Your task to perform on an android device: turn notification dots on Image 0: 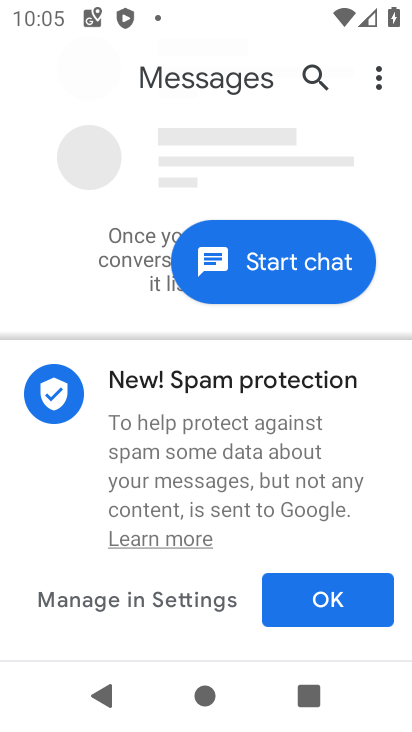
Step 0: press home button
Your task to perform on an android device: turn notification dots on Image 1: 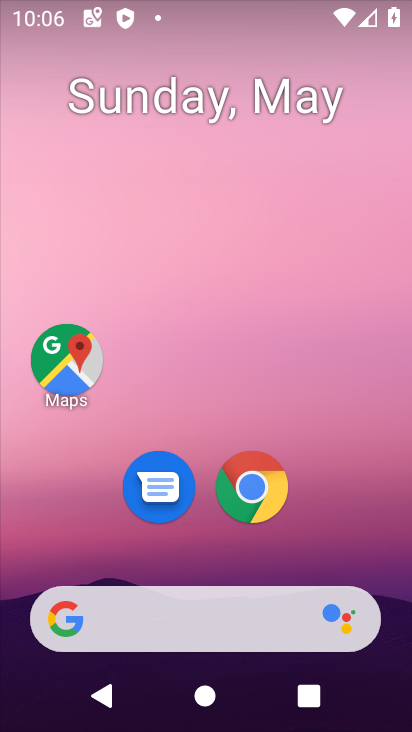
Step 1: drag from (388, 543) to (363, 229)
Your task to perform on an android device: turn notification dots on Image 2: 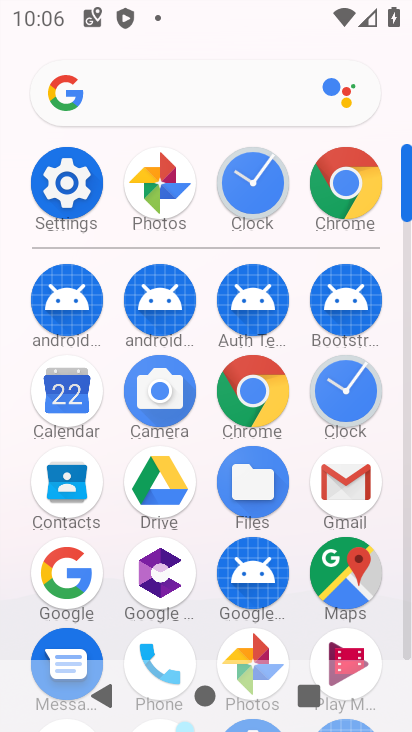
Step 2: click (81, 216)
Your task to perform on an android device: turn notification dots on Image 3: 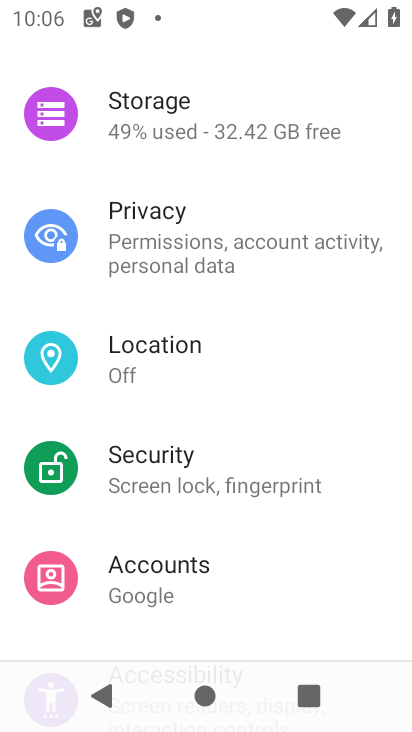
Step 3: drag from (350, 296) to (352, 413)
Your task to perform on an android device: turn notification dots on Image 4: 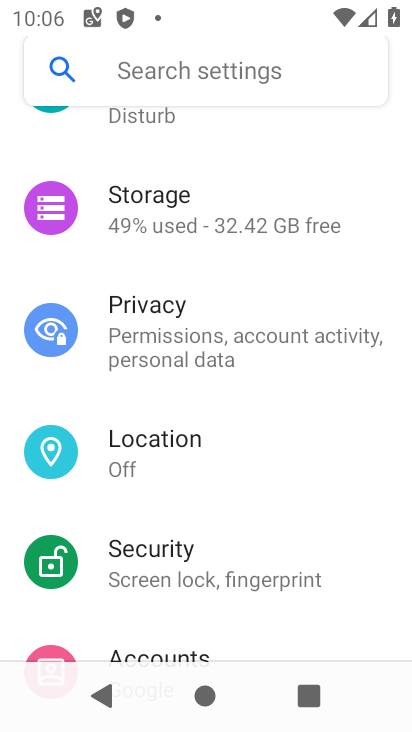
Step 4: drag from (354, 249) to (363, 359)
Your task to perform on an android device: turn notification dots on Image 5: 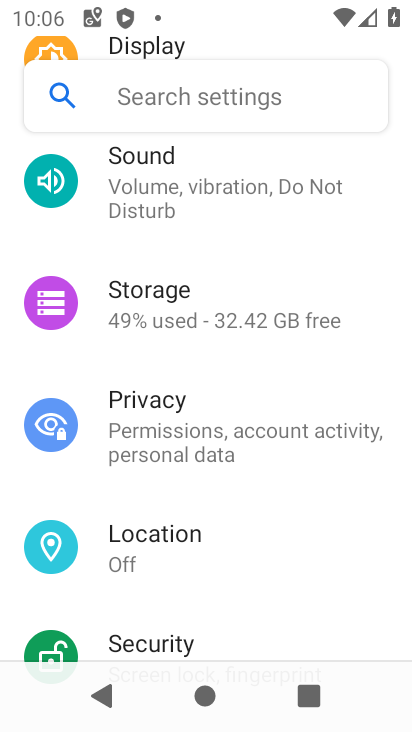
Step 5: drag from (362, 232) to (365, 343)
Your task to perform on an android device: turn notification dots on Image 6: 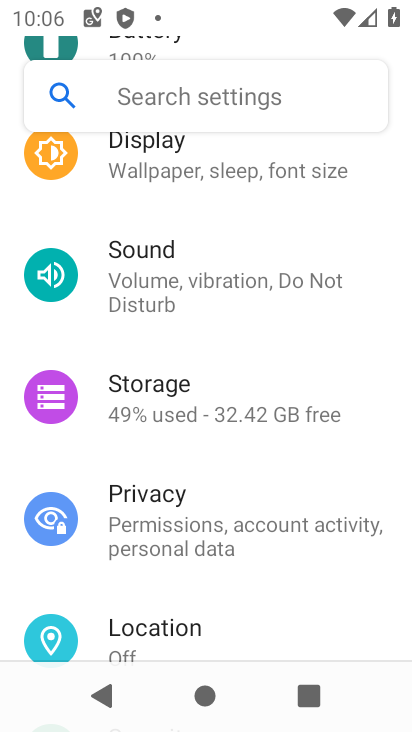
Step 6: drag from (351, 244) to (352, 357)
Your task to perform on an android device: turn notification dots on Image 7: 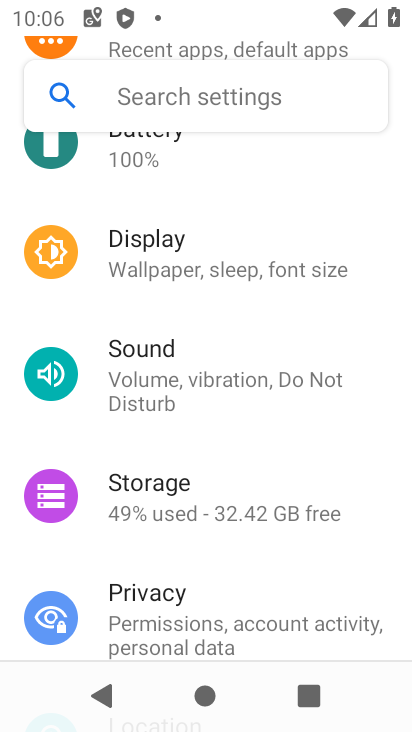
Step 7: drag from (353, 222) to (357, 335)
Your task to perform on an android device: turn notification dots on Image 8: 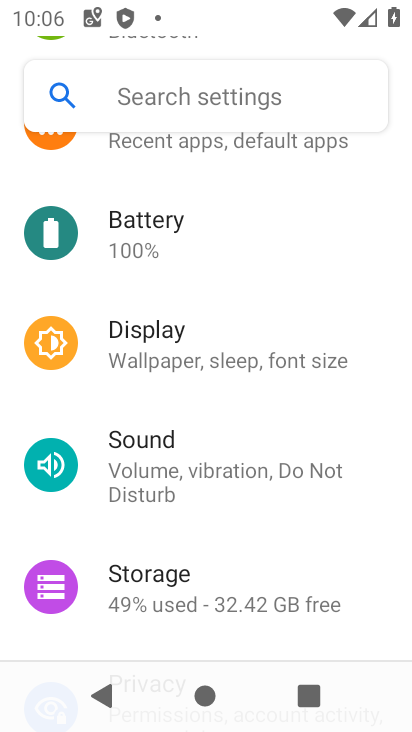
Step 8: drag from (353, 268) to (351, 356)
Your task to perform on an android device: turn notification dots on Image 9: 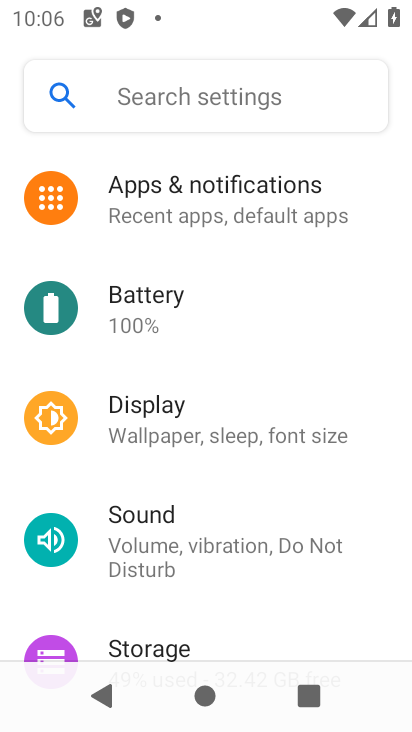
Step 9: drag from (354, 258) to (357, 366)
Your task to perform on an android device: turn notification dots on Image 10: 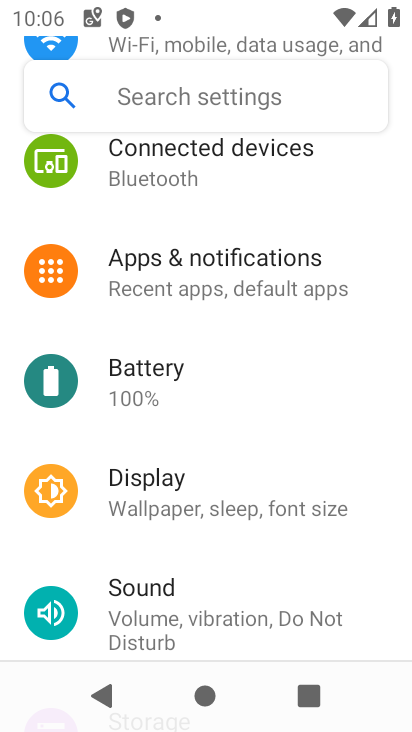
Step 10: drag from (363, 257) to (363, 361)
Your task to perform on an android device: turn notification dots on Image 11: 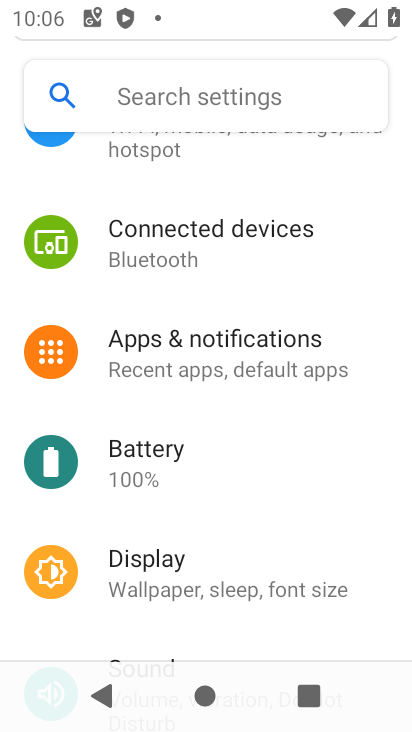
Step 11: drag from (352, 294) to (353, 361)
Your task to perform on an android device: turn notification dots on Image 12: 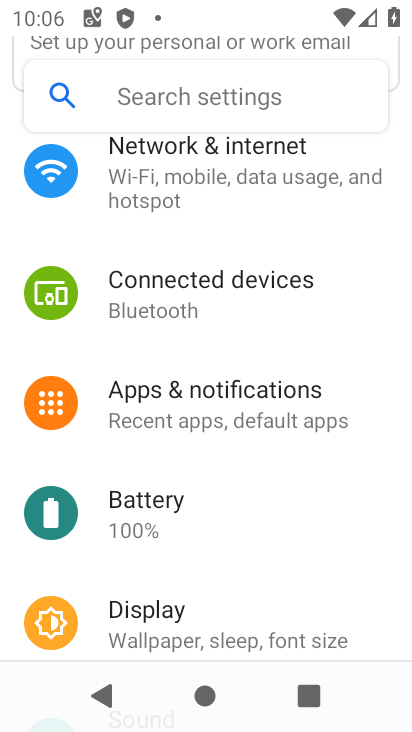
Step 12: drag from (357, 250) to (361, 329)
Your task to perform on an android device: turn notification dots on Image 13: 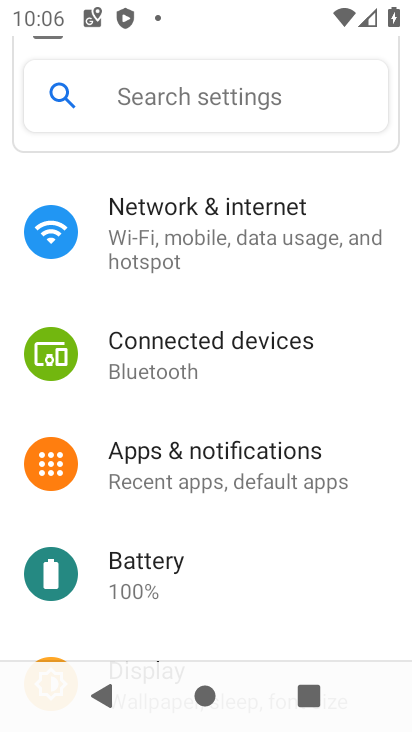
Step 13: drag from (359, 259) to (356, 334)
Your task to perform on an android device: turn notification dots on Image 14: 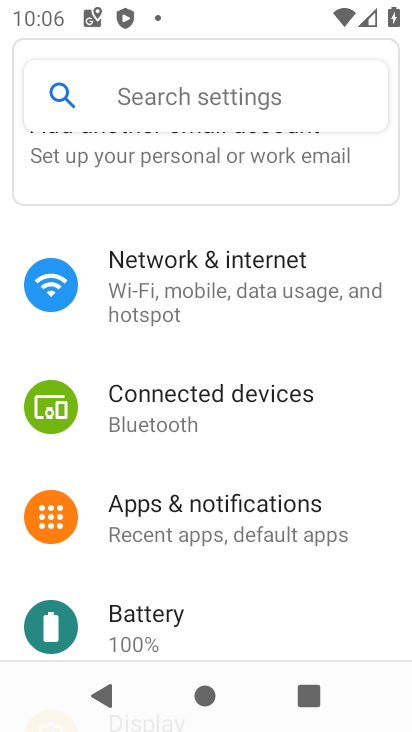
Step 14: drag from (345, 243) to (350, 294)
Your task to perform on an android device: turn notification dots on Image 15: 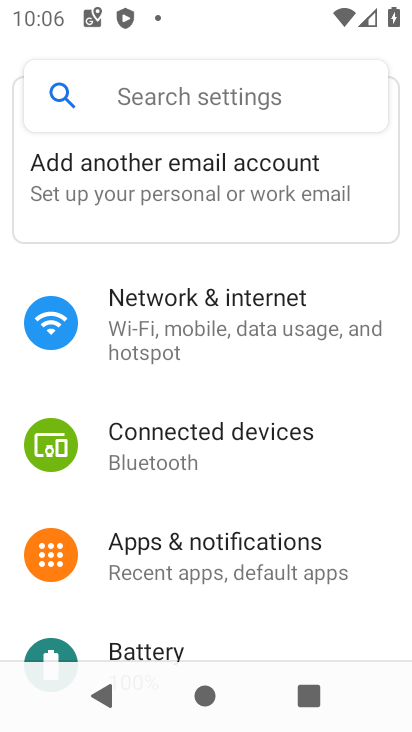
Step 15: drag from (348, 213) to (348, 290)
Your task to perform on an android device: turn notification dots on Image 16: 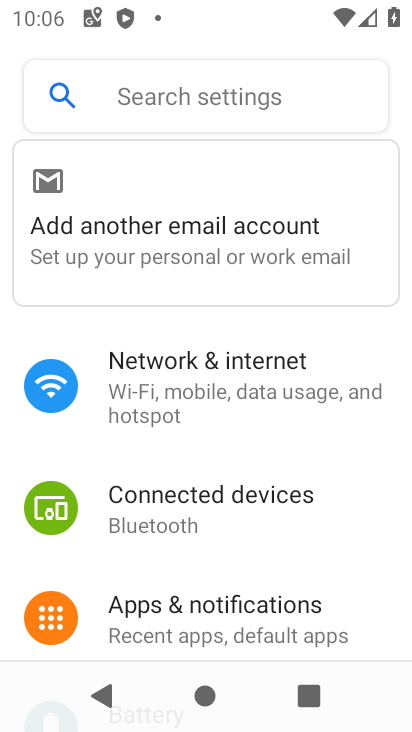
Step 16: drag from (342, 497) to (345, 396)
Your task to perform on an android device: turn notification dots on Image 17: 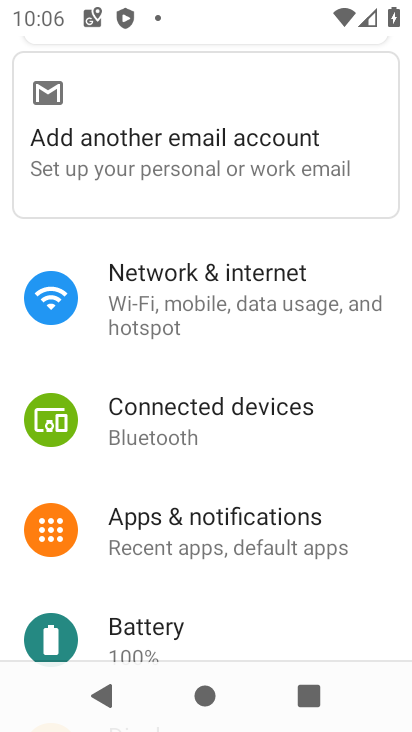
Step 17: drag from (354, 573) to (356, 477)
Your task to perform on an android device: turn notification dots on Image 18: 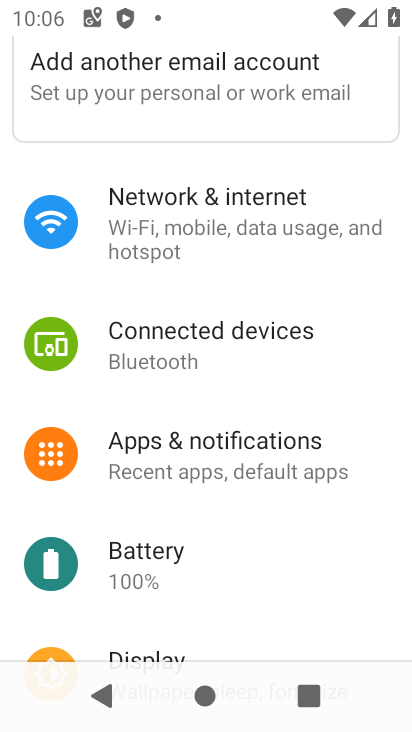
Step 18: click (307, 483)
Your task to perform on an android device: turn notification dots on Image 19: 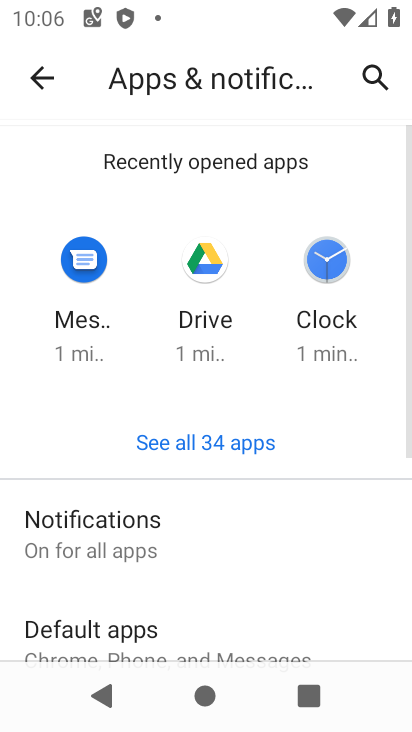
Step 19: drag from (290, 549) to (279, 457)
Your task to perform on an android device: turn notification dots on Image 20: 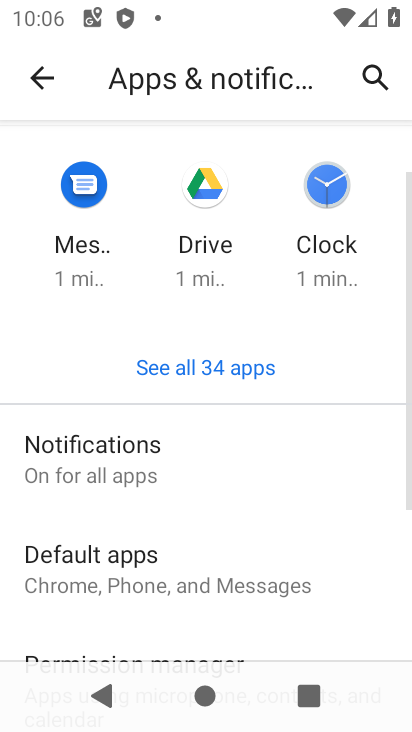
Step 20: click (177, 478)
Your task to perform on an android device: turn notification dots on Image 21: 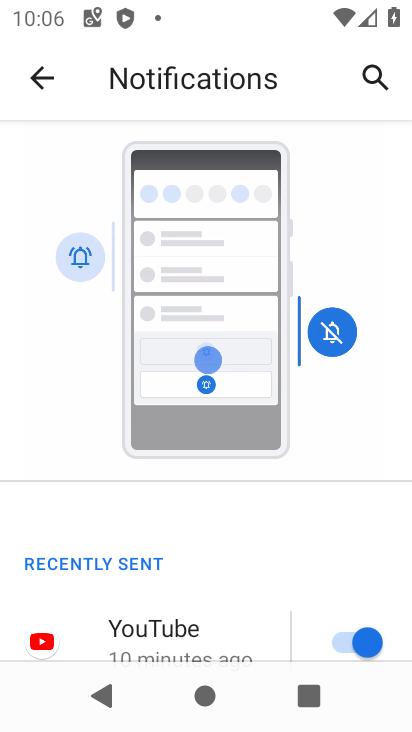
Step 21: drag from (232, 610) to (238, 552)
Your task to perform on an android device: turn notification dots on Image 22: 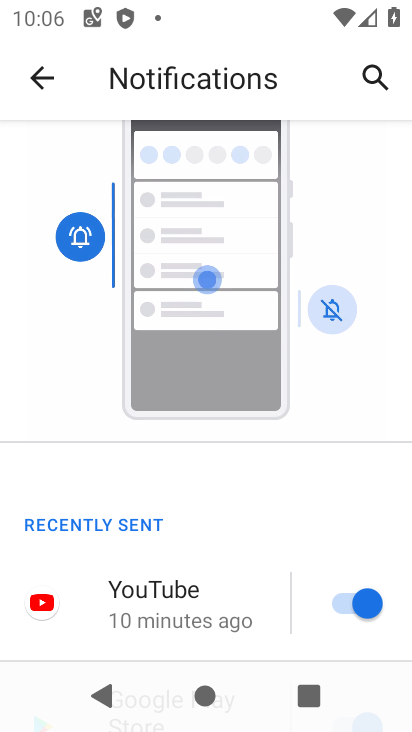
Step 22: drag from (254, 585) to (252, 534)
Your task to perform on an android device: turn notification dots on Image 23: 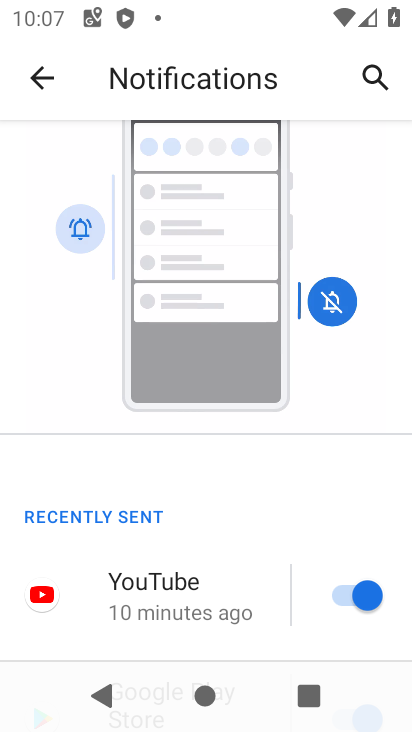
Step 23: drag from (265, 584) to (253, 490)
Your task to perform on an android device: turn notification dots on Image 24: 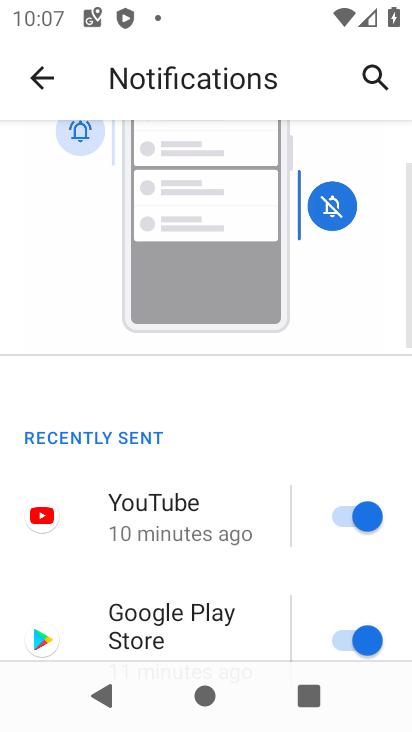
Step 24: drag from (255, 609) to (254, 504)
Your task to perform on an android device: turn notification dots on Image 25: 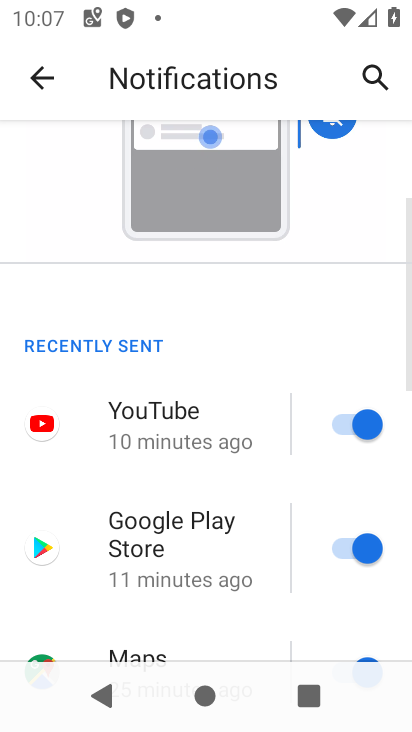
Step 25: drag from (258, 624) to (261, 471)
Your task to perform on an android device: turn notification dots on Image 26: 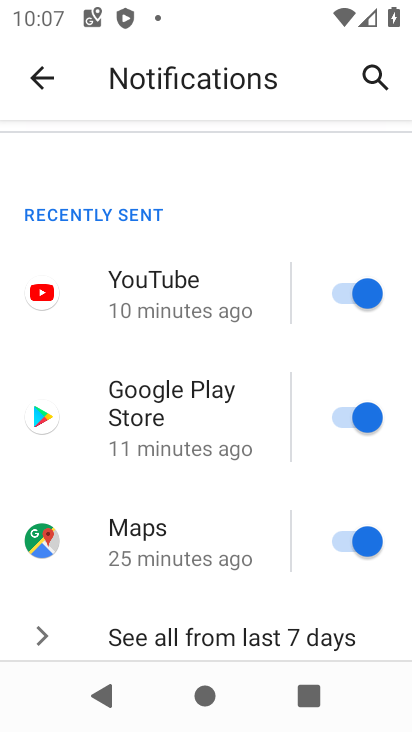
Step 26: drag from (268, 603) to (266, 424)
Your task to perform on an android device: turn notification dots on Image 27: 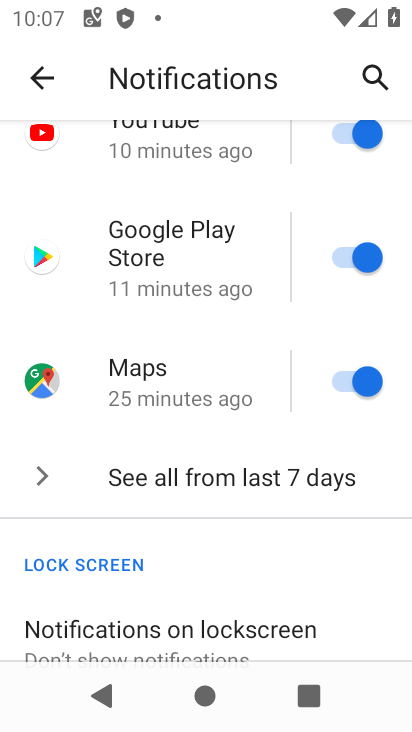
Step 27: drag from (261, 580) to (271, 398)
Your task to perform on an android device: turn notification dots on Image 28: 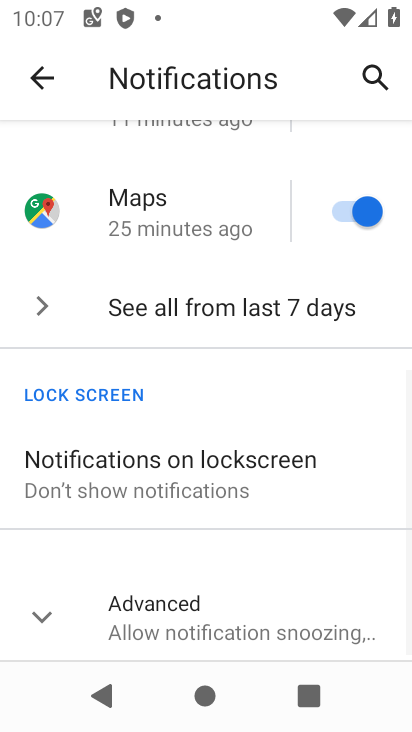
Step 28: drag from (286, 574) to (283, 418)
Your task to perform on an android device: turn notification dots on Image 29: 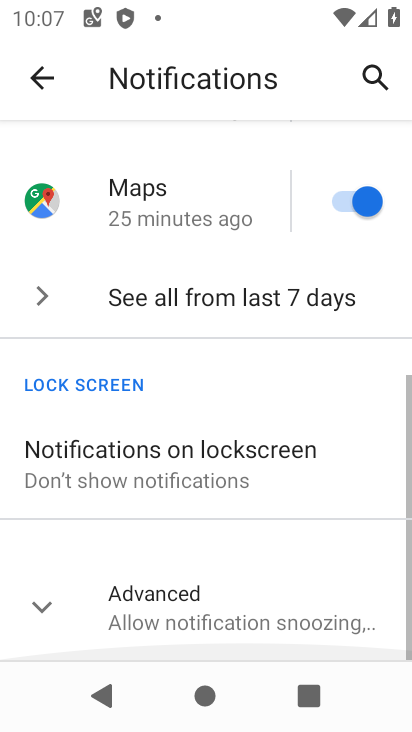
Step 29: click (250, 630)
Your task to perform on an android device: turn notification dots on Image 30: 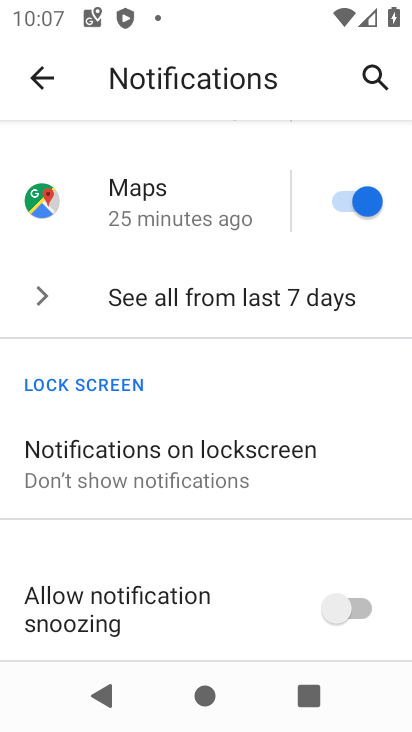
Step 30: task complete